Your task to perform on an android device: open a bookmark in the chrome app Image 0: 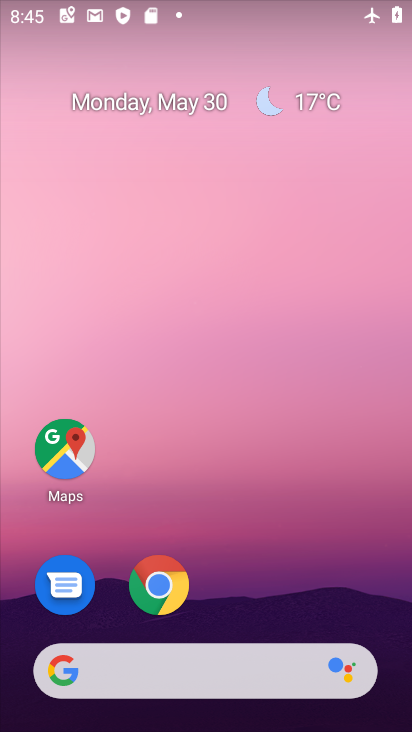
Step 0: drag from (216, 609) to (337, 97)
Your task to perform on an android device: open a bookmark in the chrome app Image 1: 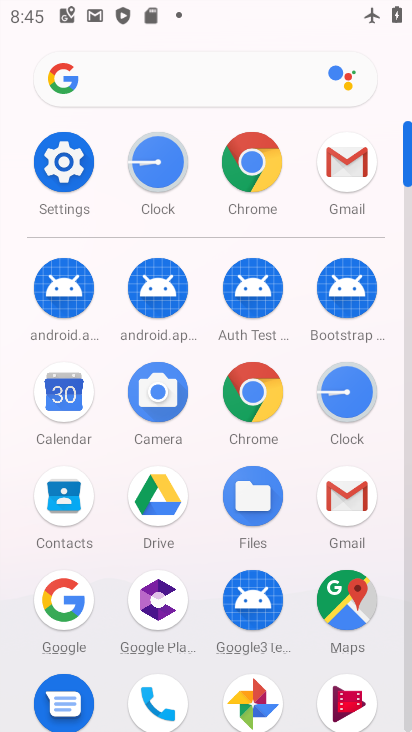
Step 1: click (256, 380)
Your task to perform on an android device: open a bookmark in the chrome app Image 2: 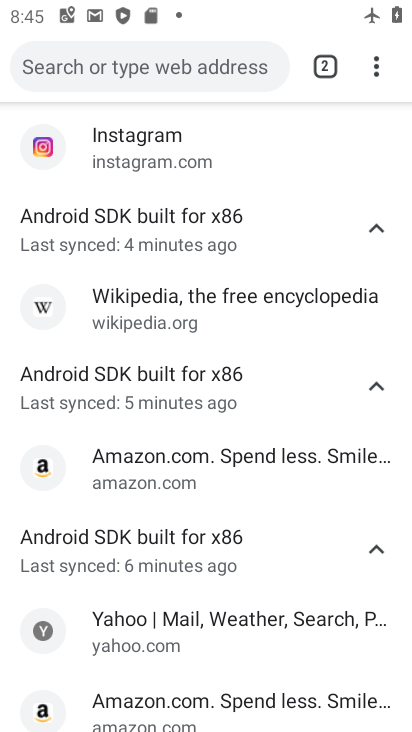
Step 2: click (374, 54)
Your task to perform on an android device: open a bookmark in the chrome app Image 3: 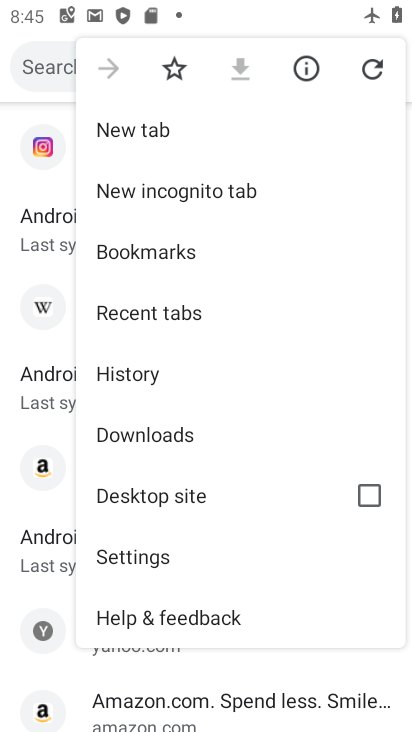
Step 3: click (166, 259)
Your task to perform on an android device: open a bookmark in the chrome app Image 4: 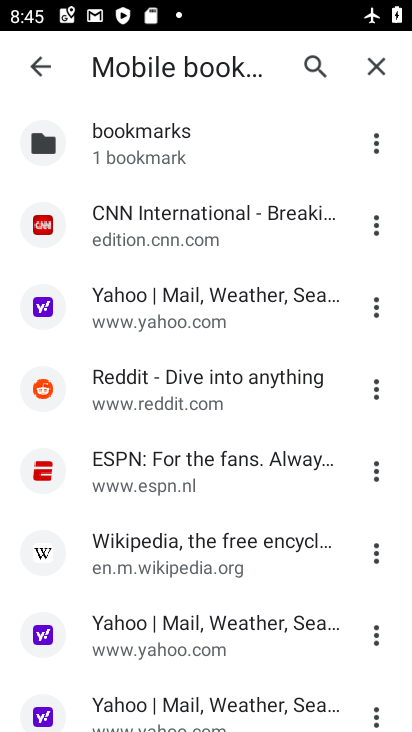
Step 4: task complete